Your task to perform on an android device: change keyboard looks Image 0: 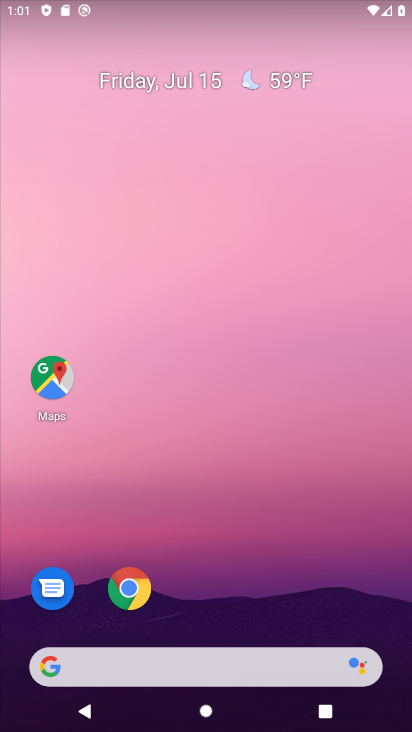
Step 0: drag from (228, 616) to (263, 134)
Your task to perform on an android device: change keyboard looks Image 1: 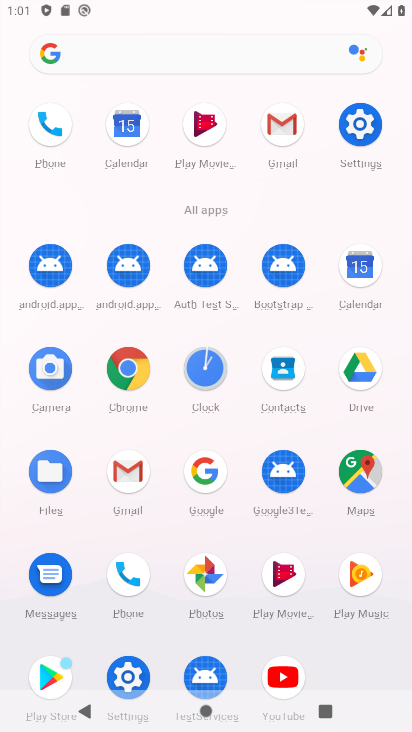
Step 1: click (359, 130)
Your task to perform on an android device: change keyboard looks Image 2: 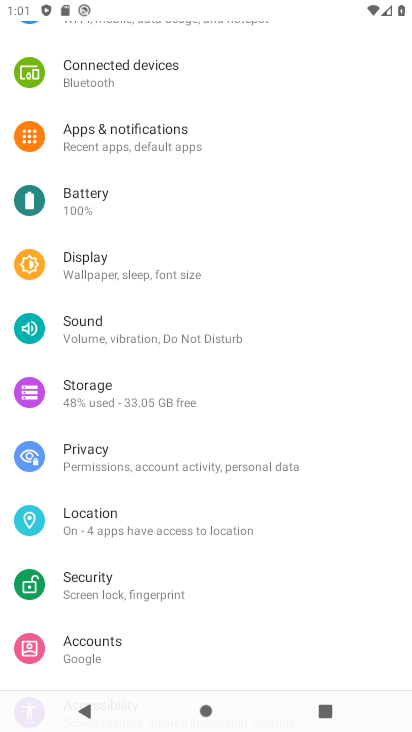
Step 2: drag from (212, 649) to (223, 101)
Your task to perform on an android device: change keyboard looks Image 3: 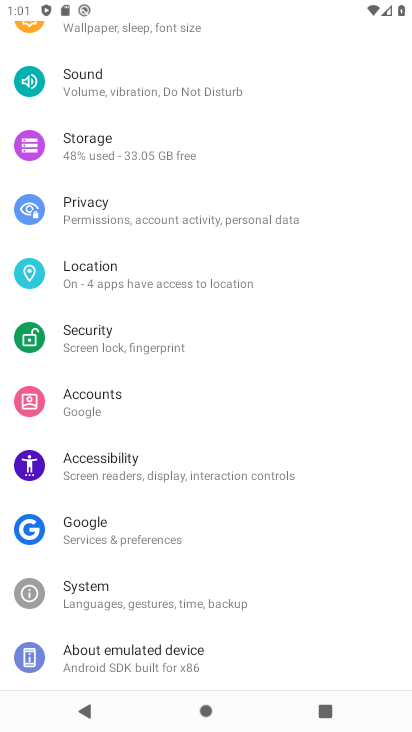
Step 3: click (85, 586)
Your task to perform on an android device: change keyboard looks Image 4: 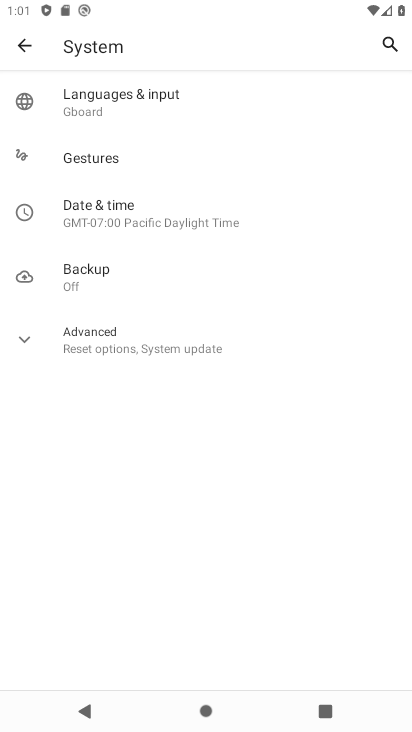
Step 4: click (104, 107)
Your task to perform on an android device: change keyboard looks Image 5: 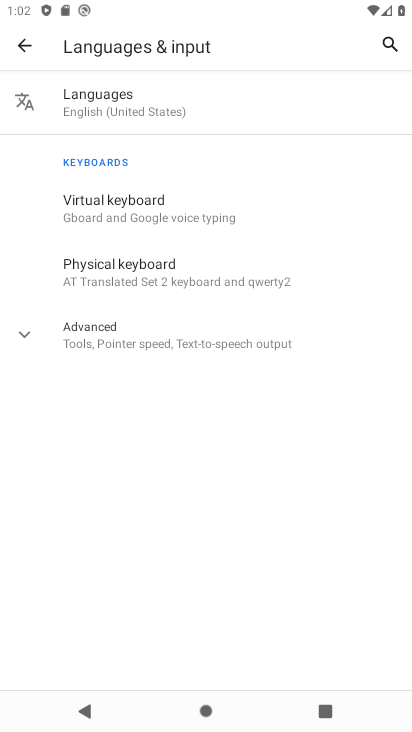
Step 5: click (141, 197)
Your task to perform on an android device: change keyboard looks Image 6: 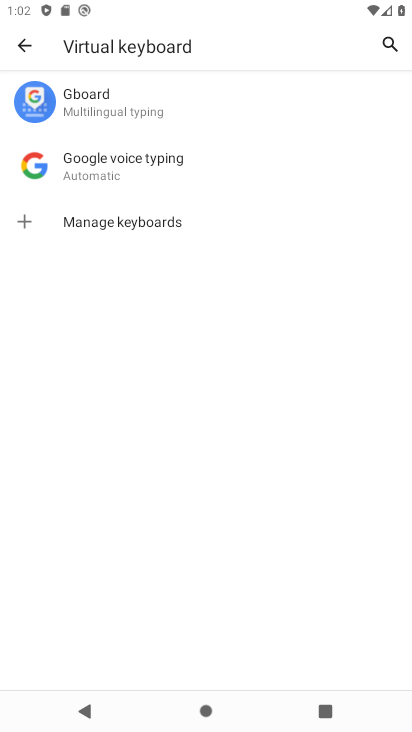
Step 6: click (96, 98)
Your task to perform on an android device: change keyboard looks Image 7: 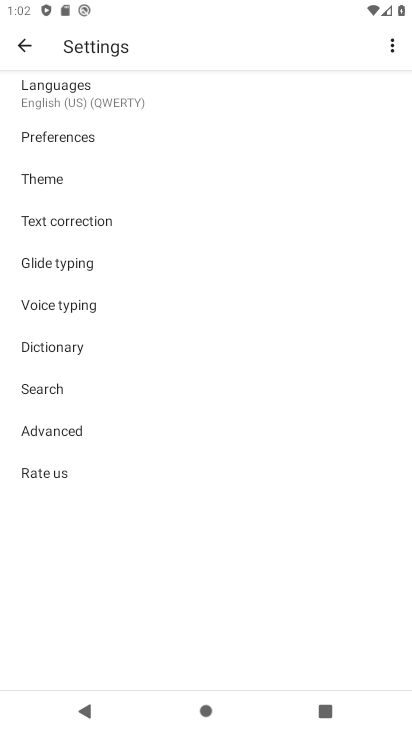
Step 7: click (54, 181)
Your task to perform on an android device: change keyboard looks Image 8: 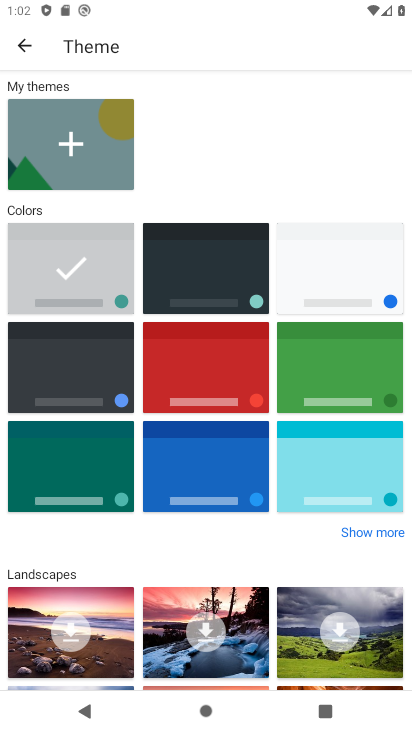
Step 8: click (191, 274)
Your task to perform on an android device: change keyboard looks Image 9: 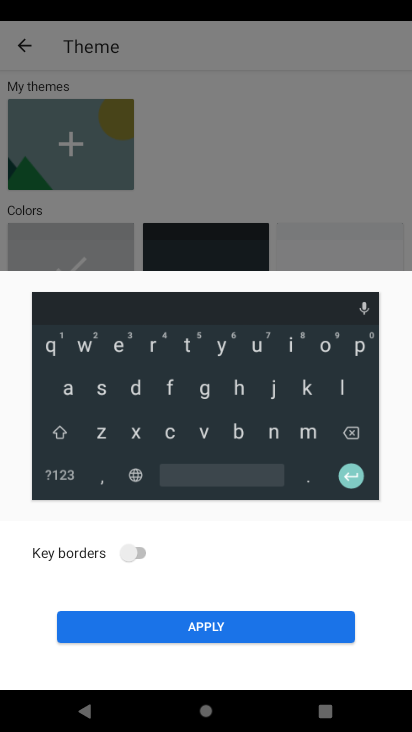
Step 9: click (191, 635)
Your task to perform on an android device: change keyboard looks Image 10: 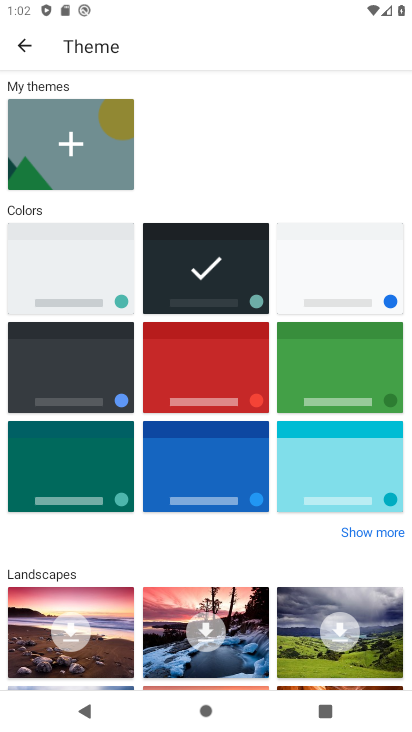
Step 10: task complete